Your task to perform on an android device: What is the recent news? Image 0: 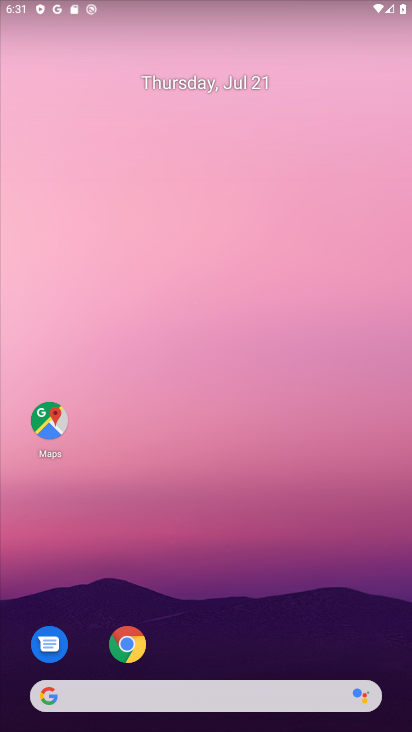
Step 0: click (122, 695)
Your task to perform on an android device: What is the recent news? Image 1: 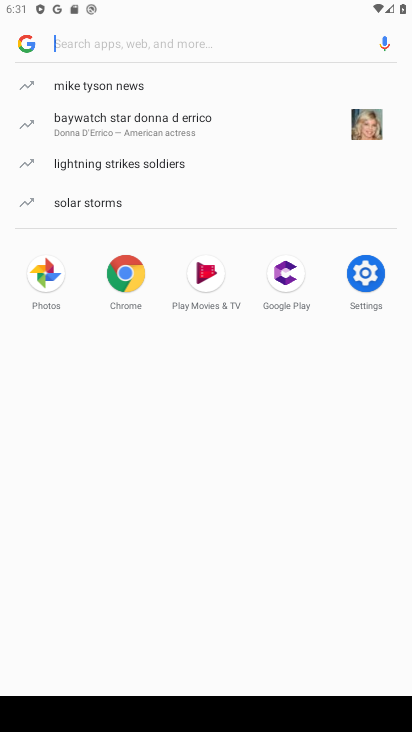
Step 1: type "What is the recent news?"
Your task to perform on an android device: What is the recent news? Image 2: 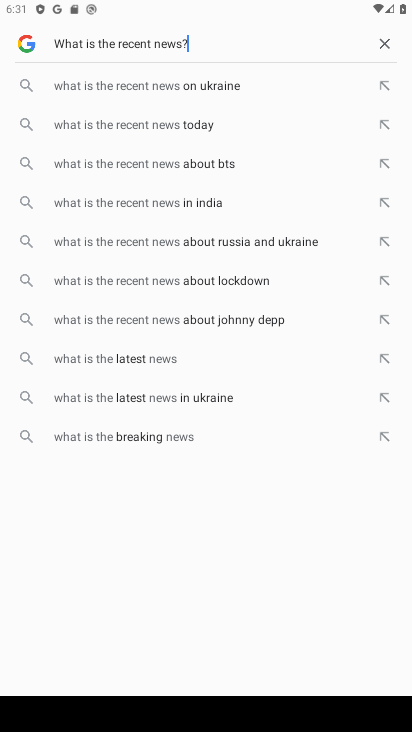
Step 2: press enter
Your task to perform on an android device: What is the recent news? Image 3: 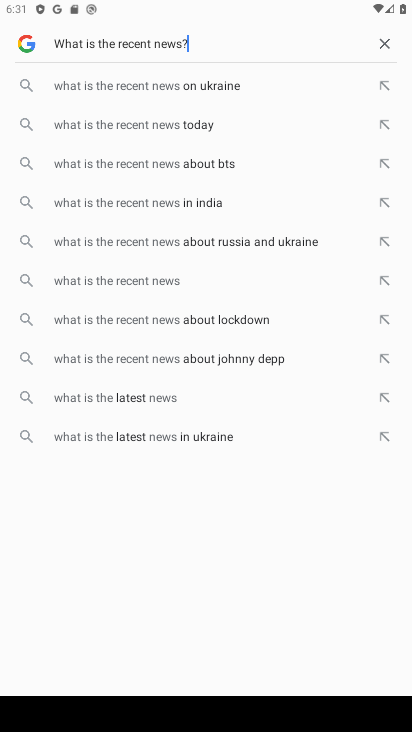
Step 3: type ""
Your task to perform on an android device: What is the recent news? Image 4: 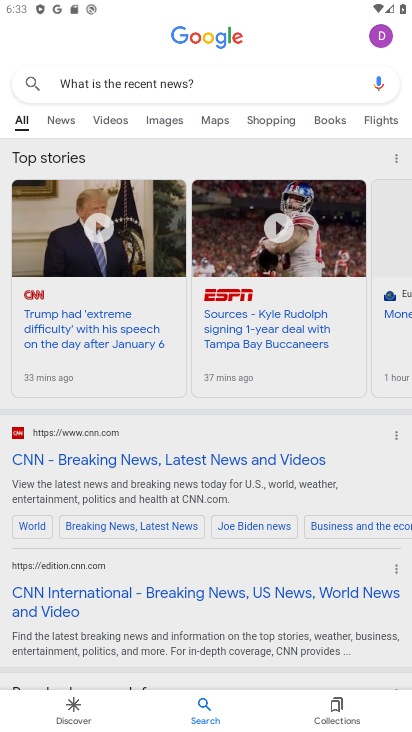
Step 4: task complete